Your task to perform on an android device: Go to Maps Image 0: 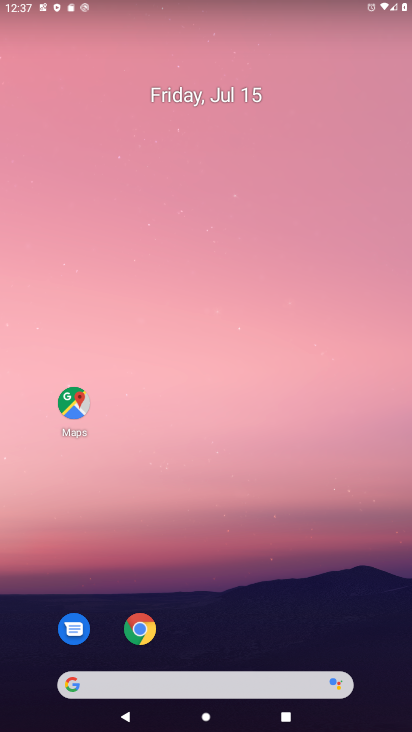
Step 0: drag from (233, 602) to (167, 11)
Your task to perform on an android device: Go to Maps Image 1: 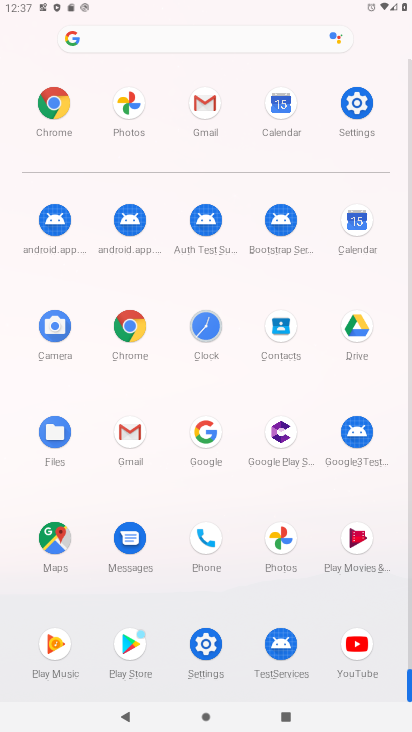
Step 1: click (46, 532)
Your task to perform on an android device: Go to Maps Image 2: 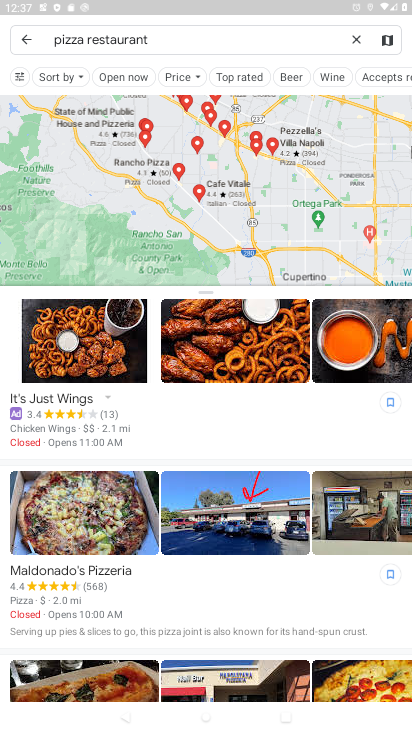
Step 2: click (34, 46)
Your task to perform on an android device: Go to Maps Image 3: 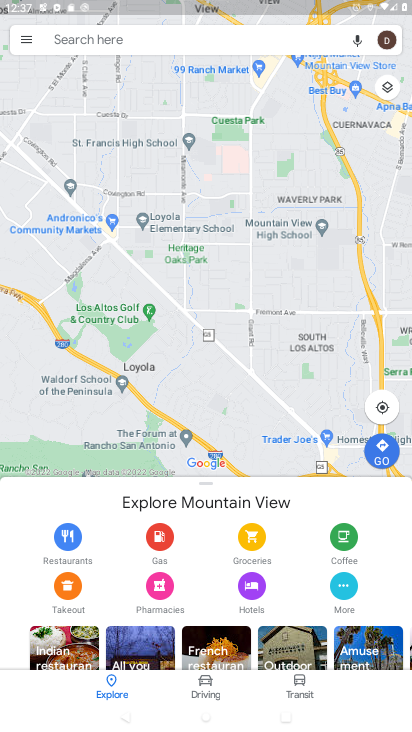
Step 3: task complete